Your task to perform on an android device: toggle airplane mode Image 0: 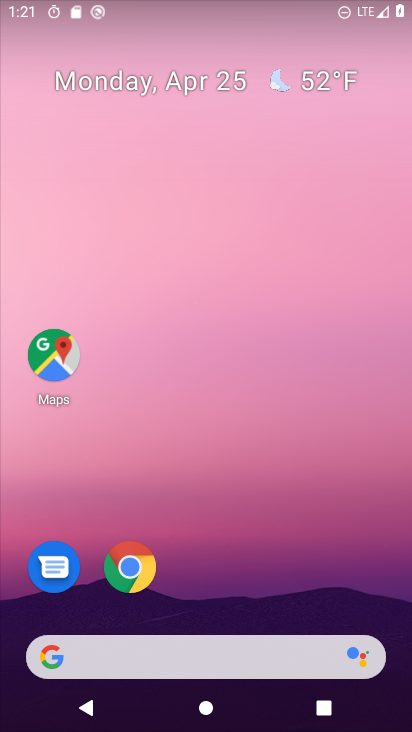
Step 0: drag from (302, 550) to (266, 1)
Your task to perform on an android device: toggle airplane mode Image 1: 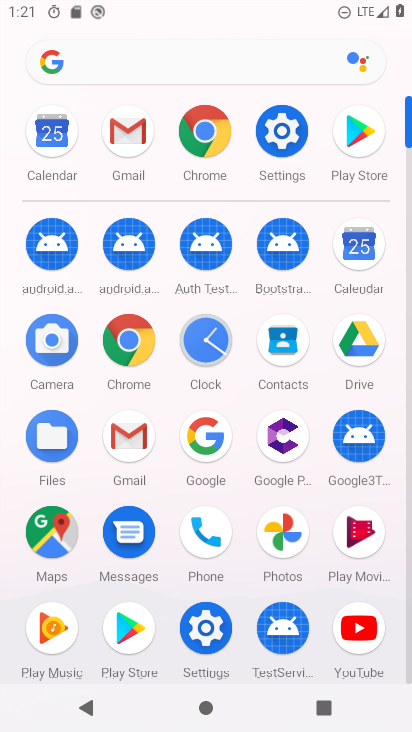
Step 1: click (284, 133)
Your task to perform on an android device: toggle airplane mode Image 2: 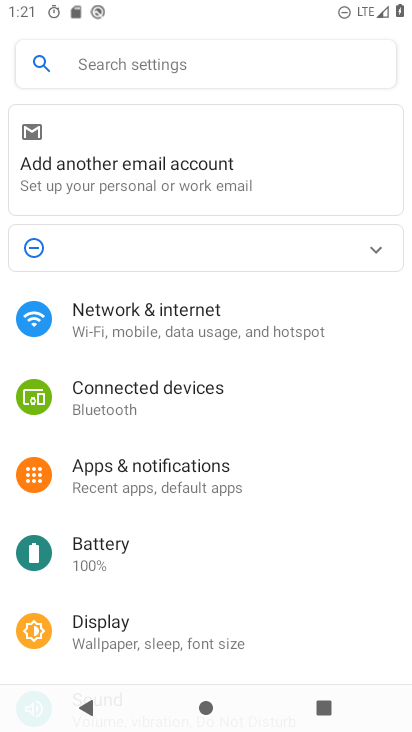
Step 2: click (211, 315)
Your task to perform on an android device: toggle airplane mode Image 3: 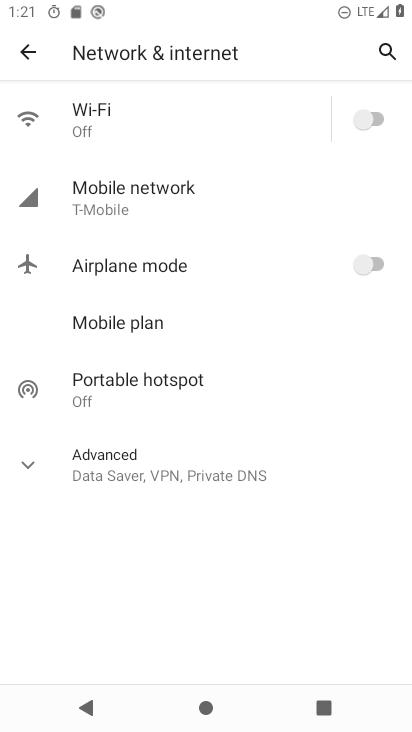
Step 3: click (366, 258)
Your task to perform on an android device: toggle airplane mode Image 4: 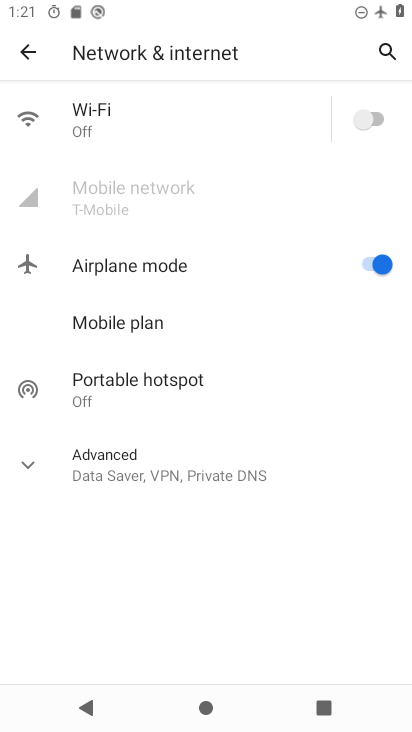
Step 4: task complete